Your task to perform on an android device: Check the news Image 0: 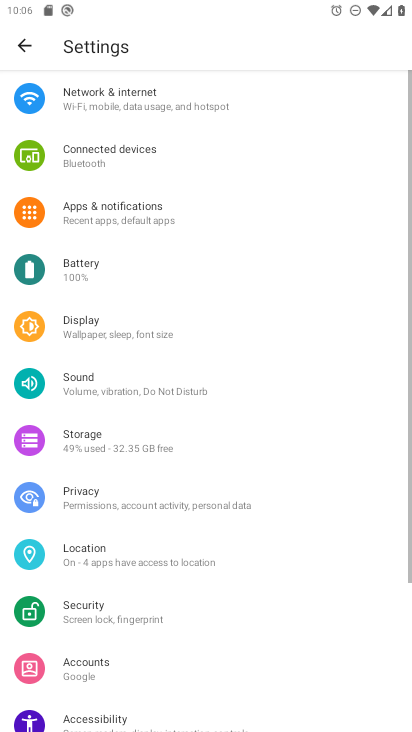
Step 0: press home button
Your task to perform on an android device: Check the news Image 1: 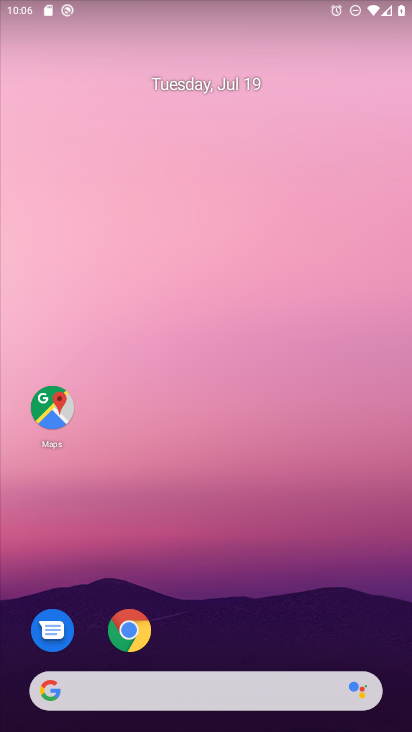
Step 1: drag from (221, 679) to (156, 218)
Your task to perform on an android device: Check the news Image 2: 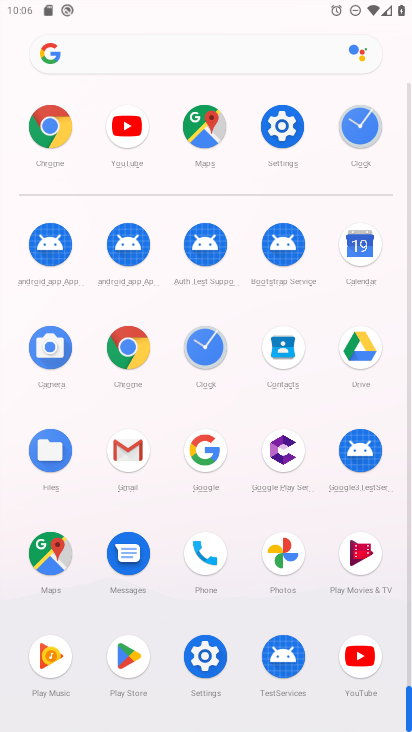
Step 2: click (204, 456)
Your task to perform on an android device: Check the news Image 3: 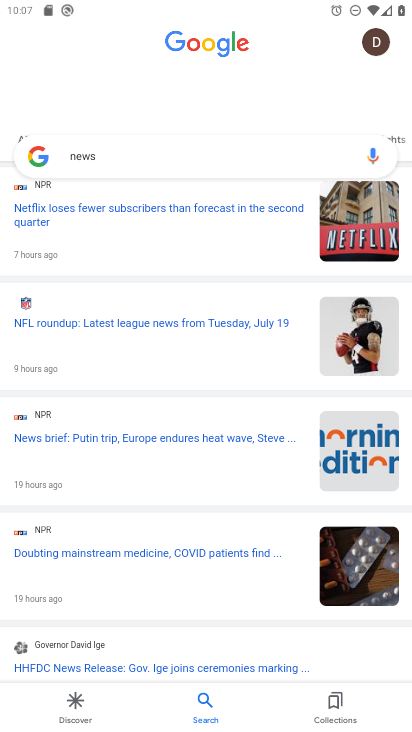
Step 3: task complete